Your task to perform on an android device: see tabs open on other devices in the chrome app Image 0: 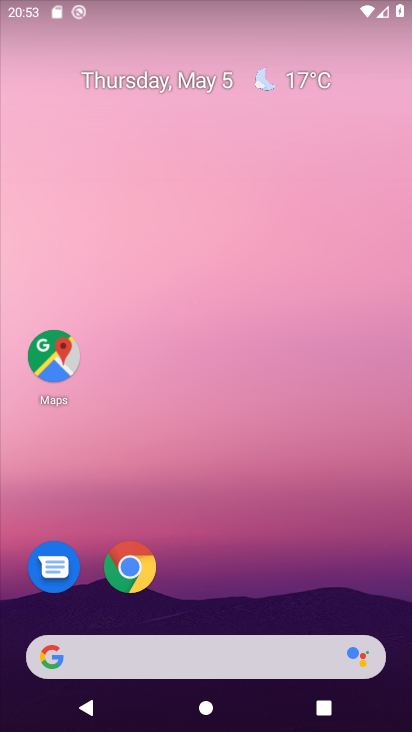
Step 0: drag from (284, 577) to (269, 25)
Your task to perform on an android device: see tabs open on other devices in the chrome app Image 1: 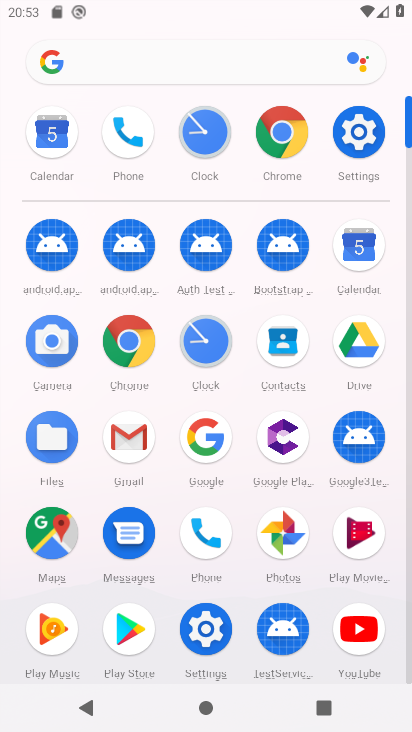
Step 1: click (270, 133)
Your task to perform on an android device: see tabs open on other devices in the chrome app Image 2: 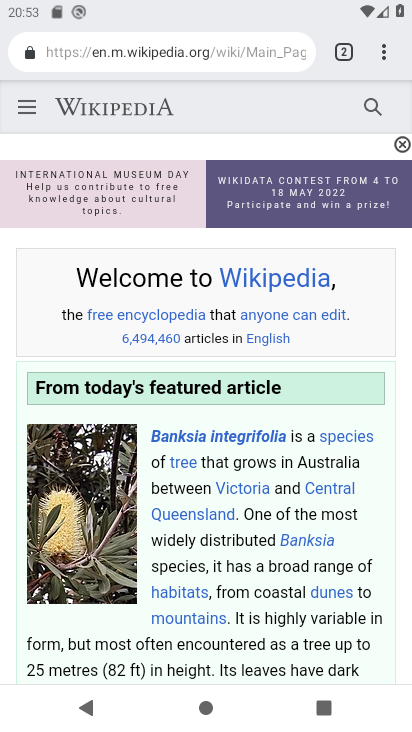
Step 2: click (378, 47)
Your task to perform on an android device: see tabs open on other devices in the chrome app Image 3: 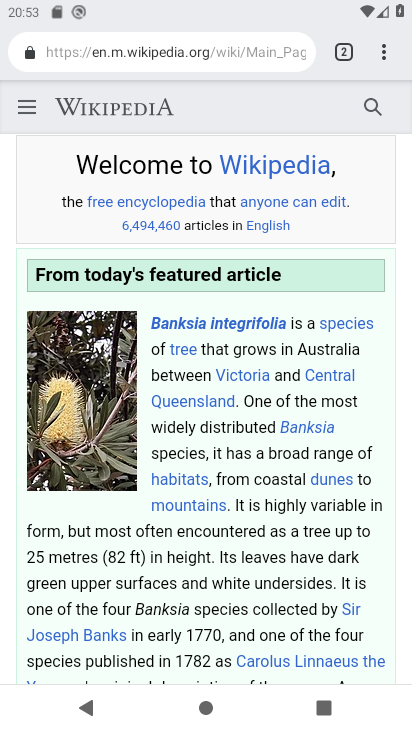
Step 3: task complete